Your task to perform on an android device: Turn on the flashlight Image 0: 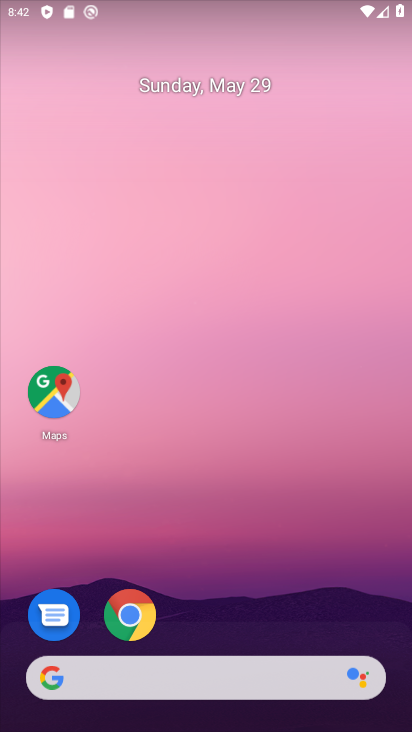
Step 0: drag from (314, 45) to (248, 478)
Your task to perform on an android device: Turn on the flashlight Image 1: 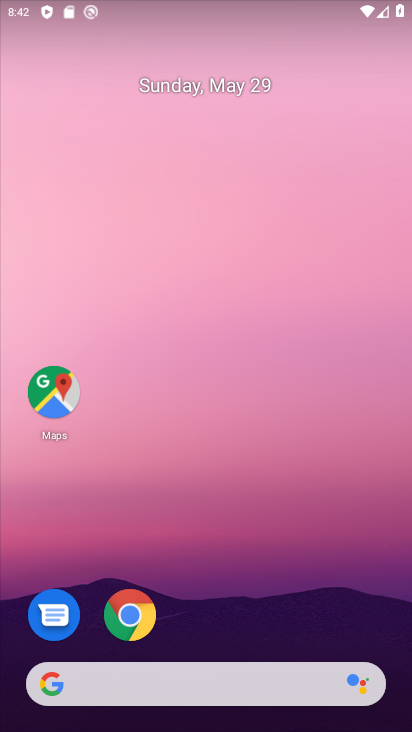
Step 1: task complete